Your task to perform on an android device: see creations saved in the google photos Image 0: 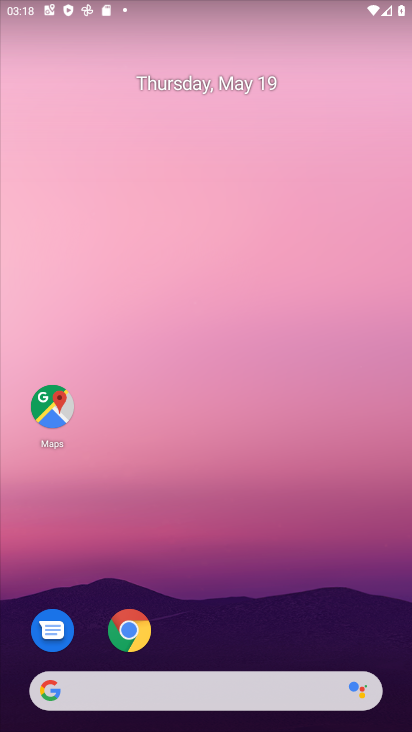
Step 0: drag from (379, 629) to (336, 27)
Your task to perform on an android device: see creations saved in the google photos Image 1: 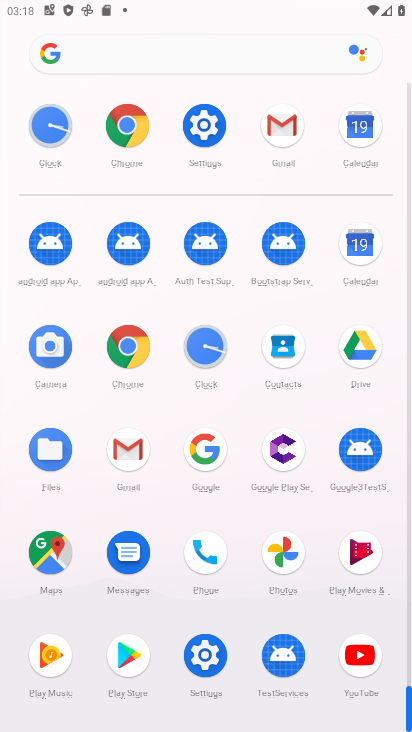
Step 1: click (281, 552)
Your task to perform on an android device: see creations saved in the google photos Image 2: 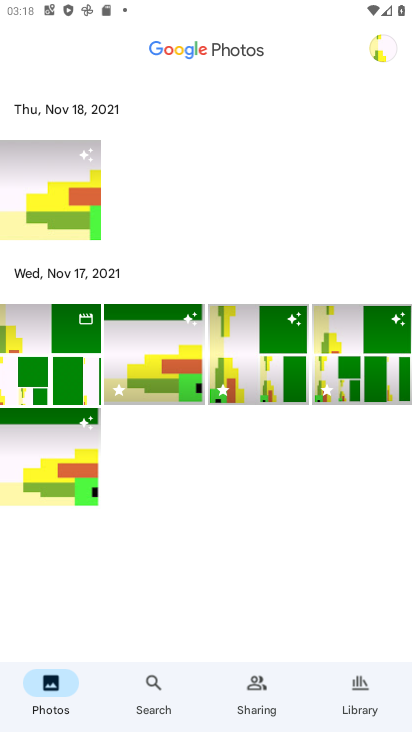
Step 2: task complete